Your task to perform on an android device: add a contact Image 0: 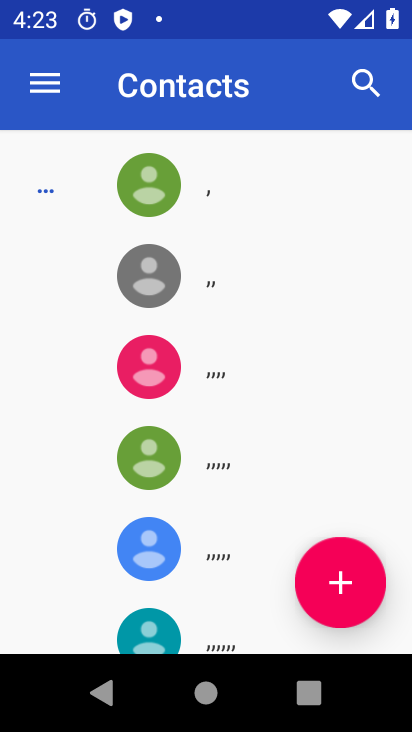
Step 0: click (352, 601)
Your task to perform on an android device: add a contact Image 1: 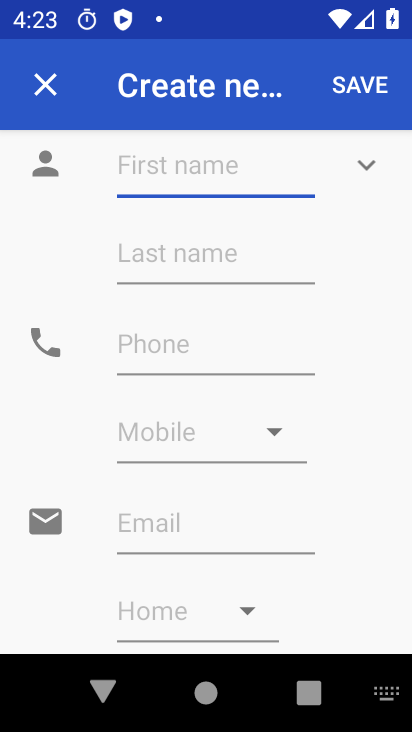
Step 1: type ""
Your task to perform on an android device: add a contact Image 2: 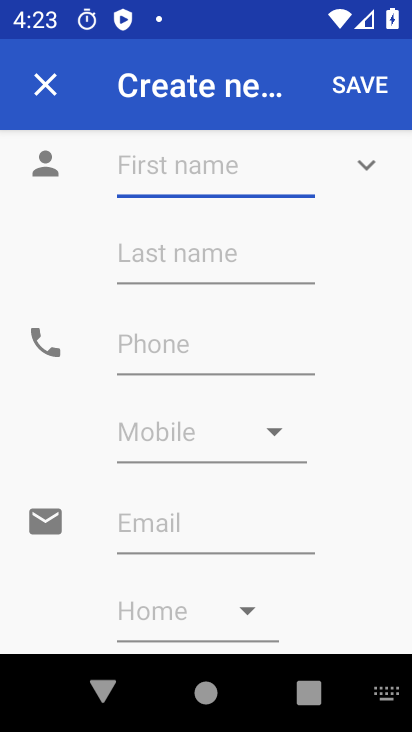
Step 2: type "bdrrhrh"
Your task to perform on an android device: add a contact Image 3: 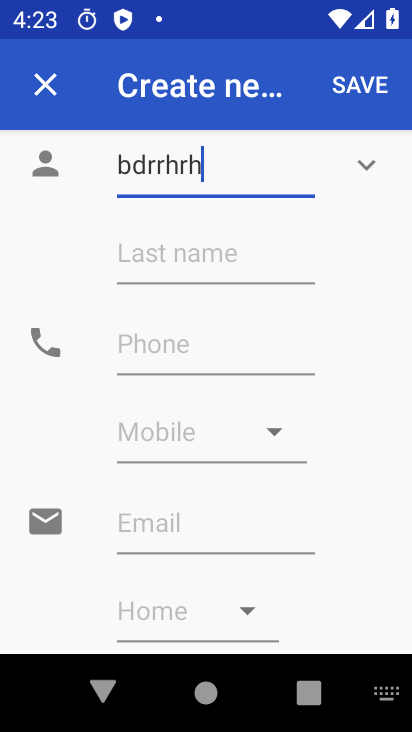
Step 3: click (186, 254)
Your task to perform on an android device: add a contact Image 4: 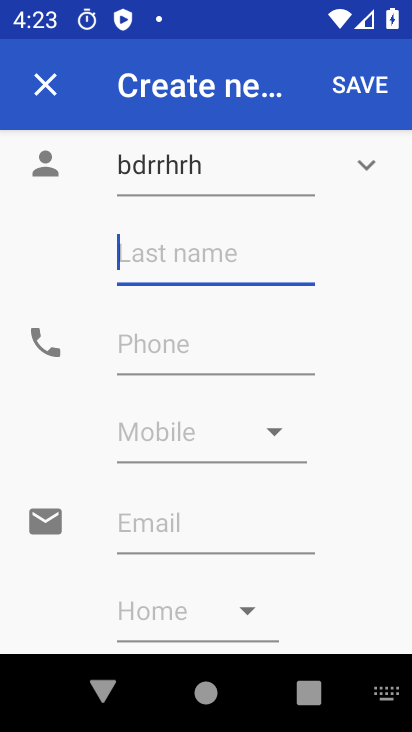
Step 4: type "hdhhh"
Your task to perform on an android device: add a contact Image 5: 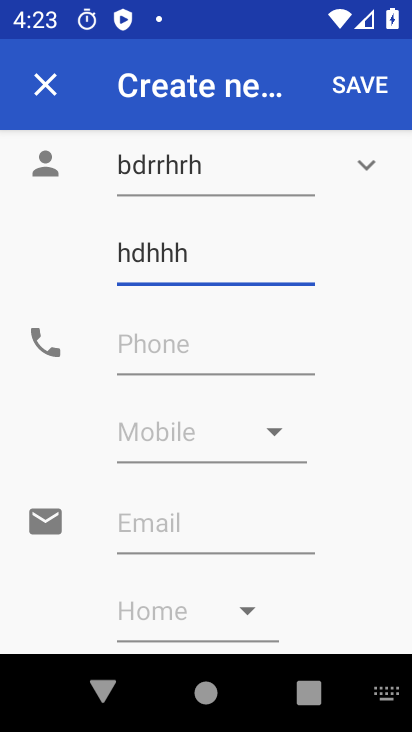
Step 5: click (171, 349)
Your task to perform on an android device: add a contact Image 6: 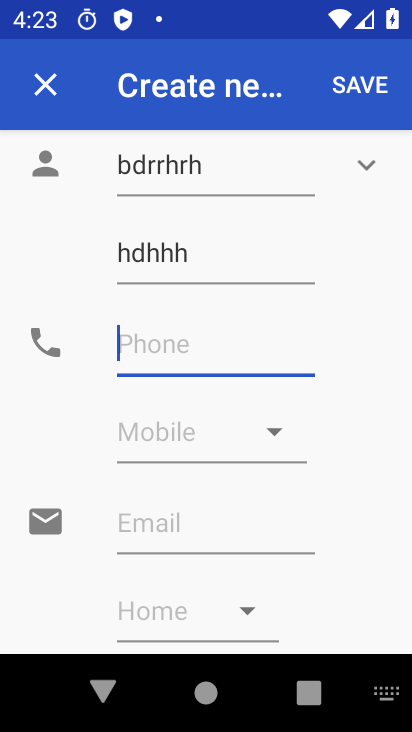
Step 6: type "23525523352"
Your task to perform on an android device: add a contact Image 7: 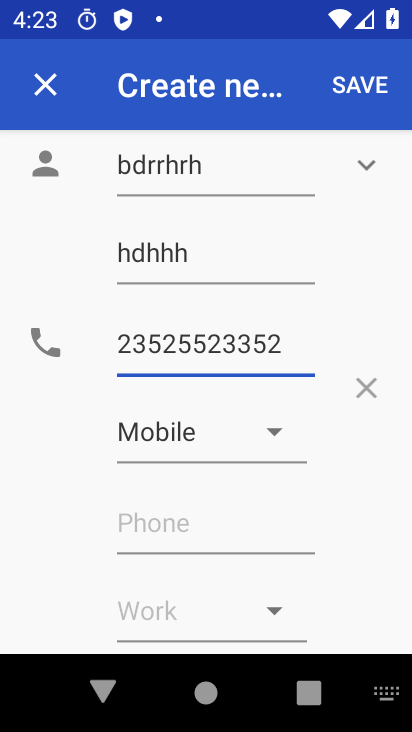
Step 7: click (367, 79)
Your task to perform on an android device: add a contact Image 8: 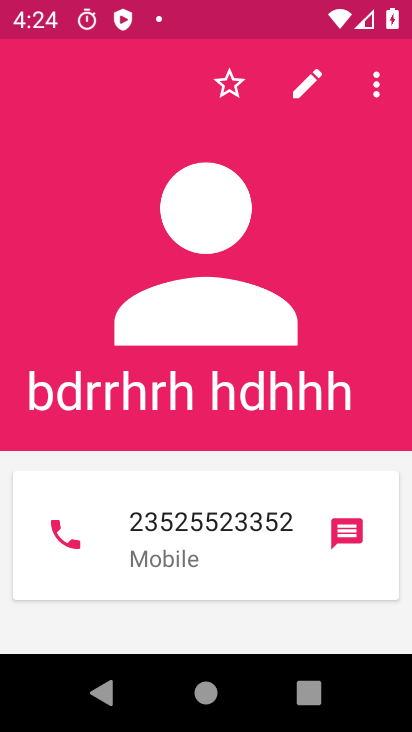
Step 8: task complete